Your task to perform on an android device: Open Android settings Image 0: 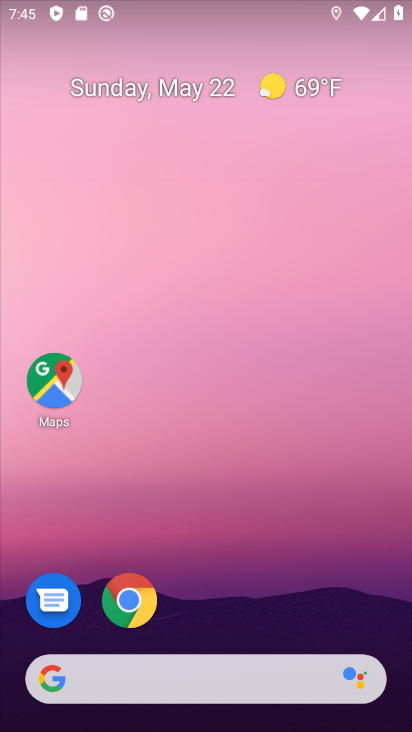
Step 0: drag from (240, 571) to (280, 143)
Your task to perform on an android device: Open Android settings Image 1: 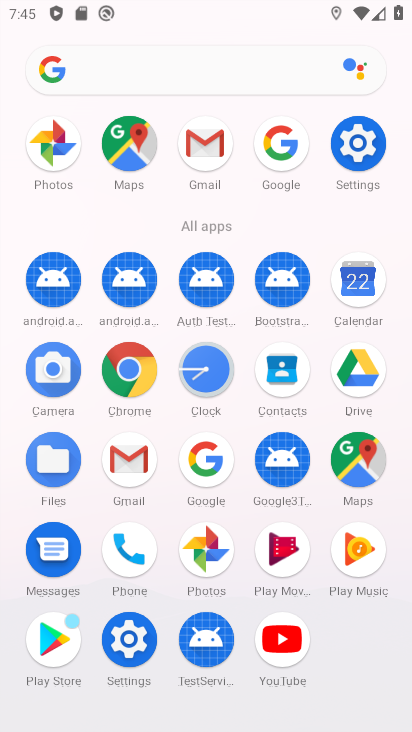
Step 1: click (356, 152)
Your task to perform on an android device: Open Android settings Image 2: 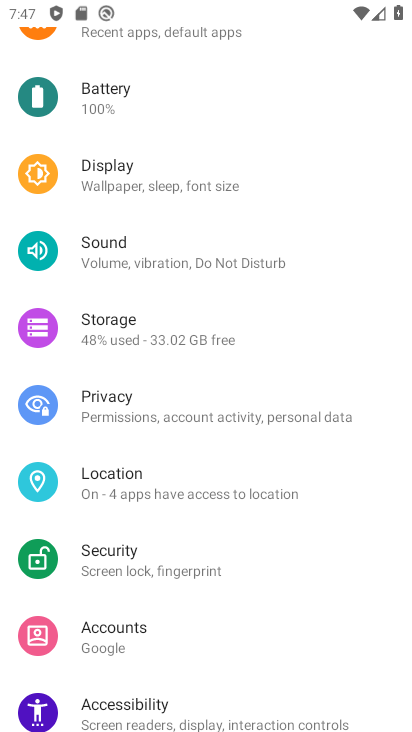
Step 2: task complete